Your task to perform on an android device: Open Chrome and go to settings Image 0: 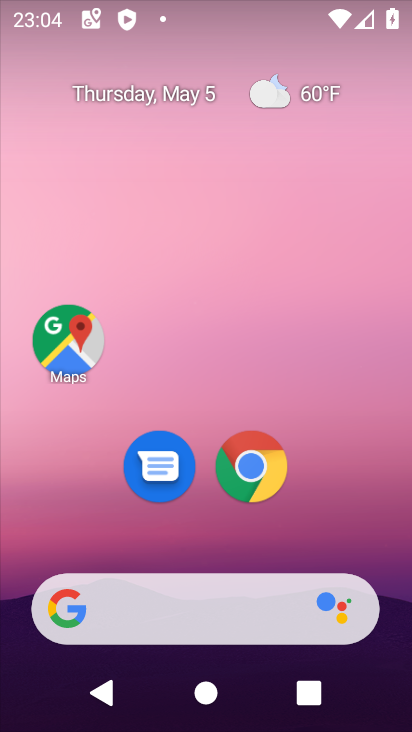
Step 0: click (232, 479)
Your task to perform on an android device: Open Chrome and go to settings Image 1: 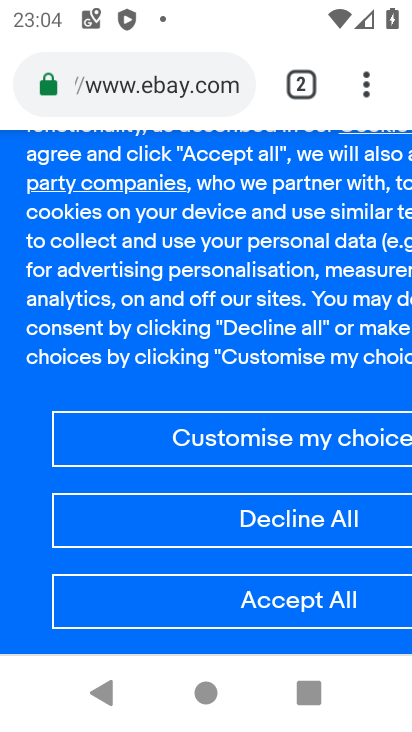
Step 1: click (362, 83)
Your task to perform on an android device: Open Chrome and go to settings Image 2: 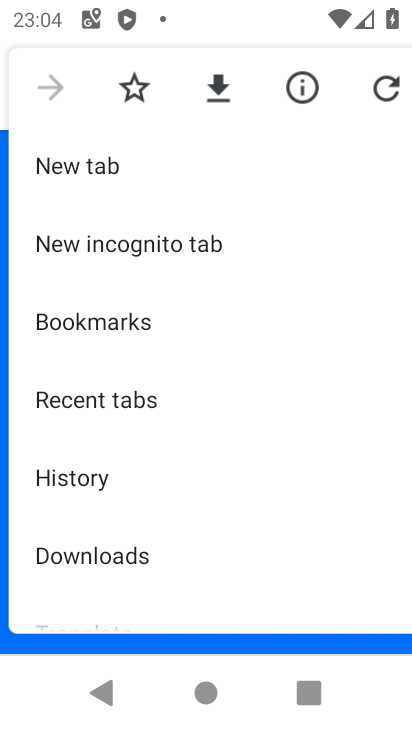
Step 2: drag from (122, 576) to (125, 219)
Your task to perform on an android device: Open Chrome and go to settings Image 3: 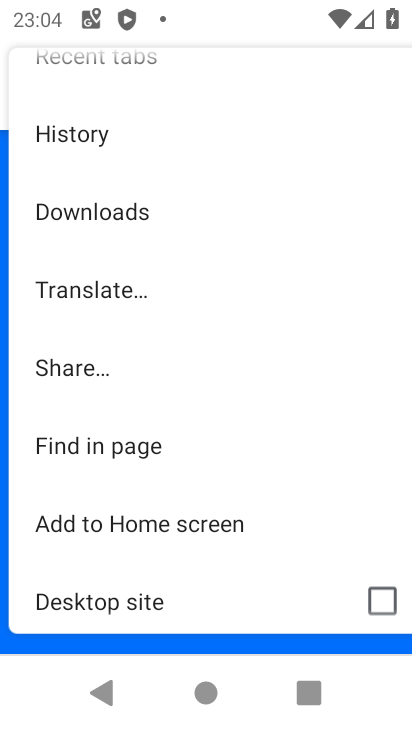
Step 3: drag from (90, 601) to (111, 304)
Your task to perform on an android device: Open Chrome and go to settings Image 4: 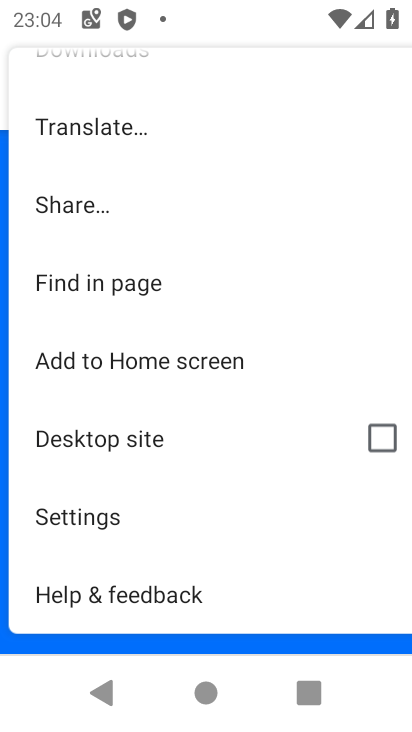
Step 4: click (69, 511)
Your task to perform on an android device: Open Chrome and go to settings Image 5: 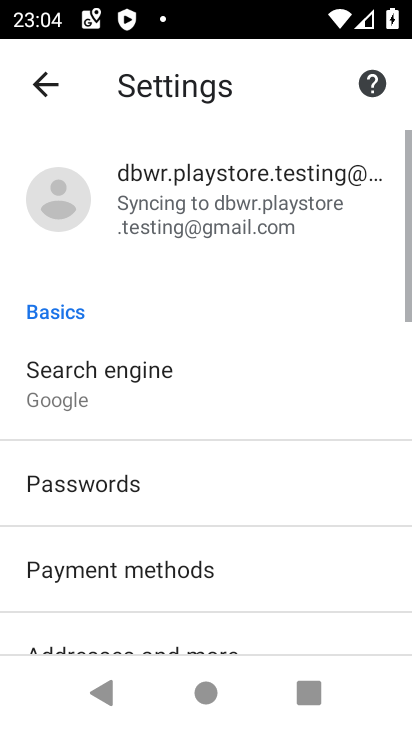
Step 5: task complete